Your task to perform on an android device: Search for Italian restaurants on Maps Image 0: 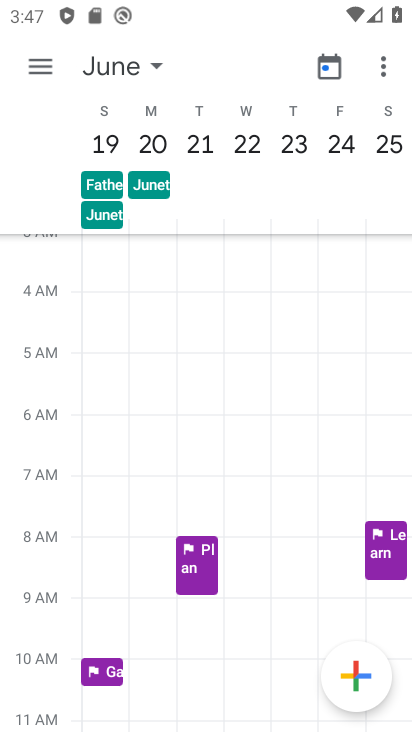
Step 0: press home button
Your task to perform on an android device: Search for Italian restaurants on Maps Image 1: 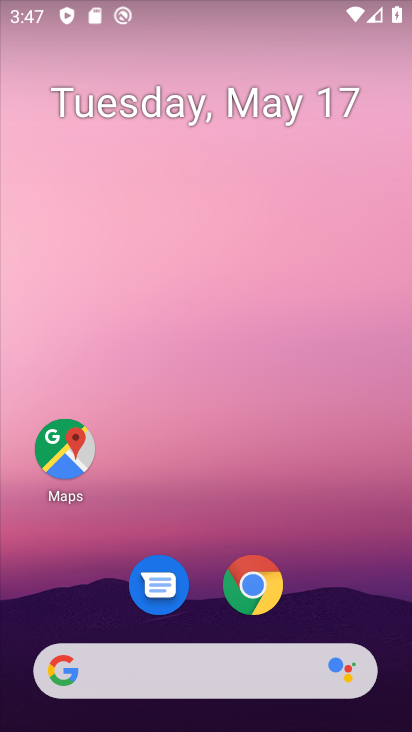
Step 1: click (71, 446)
Your task to perform on an android device: Search for Italian restaurants on Maps Image 2: 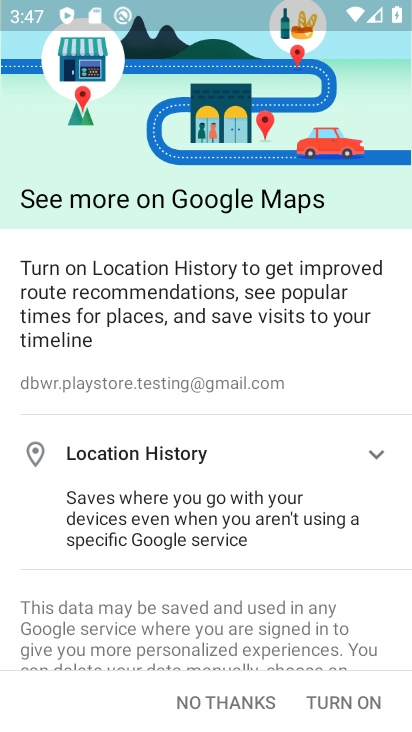
Step 2: click (343, 694)
Your task to perform on an android device: Search for Italian restaurants on Maps Image 3: 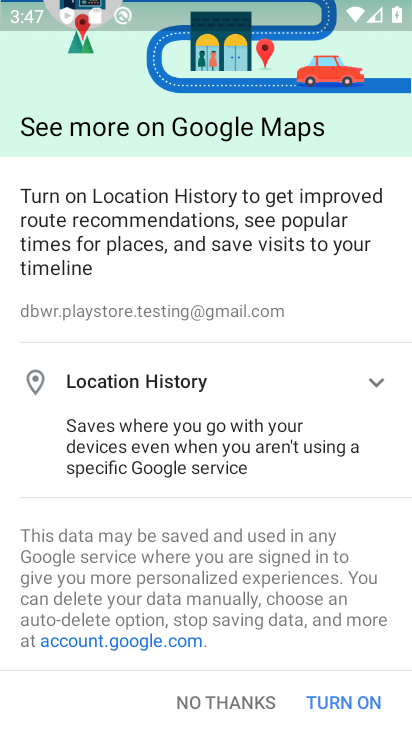
Step 3: click (344, 694)
Your task to perform on an android device: Search for Italian restaurants on Maps Image 4: 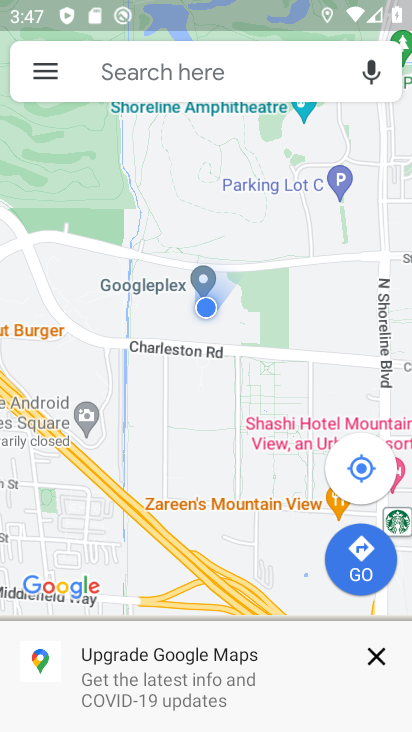
Step 4: click (111, 64)
Your task to perform on an android device: Search for Italian restaurants on Maps Image 5: 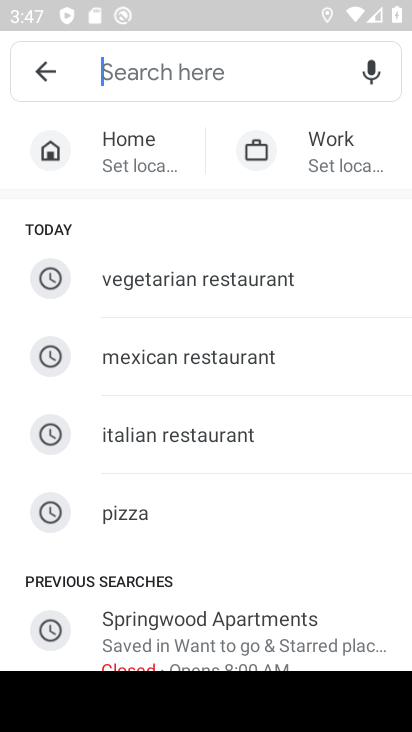
Step 5: click (173, 422)
Your task to perform on an android device: Search for Italian restaurants on Maps Image 6: 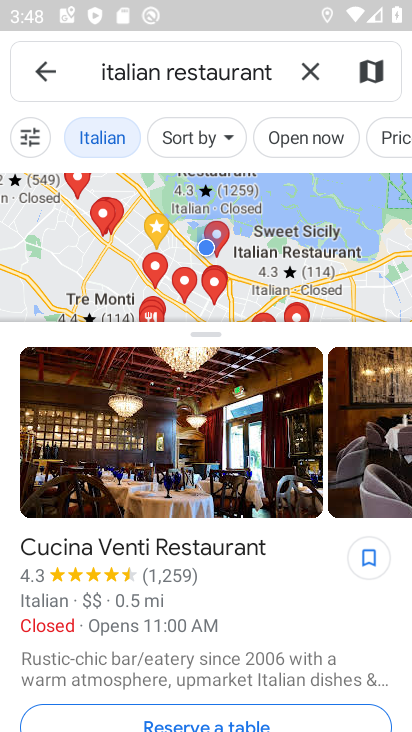
Step 6: task complete